Your task to perform on an android device: read, delete, or share a saved page in the chrome app Image 0: 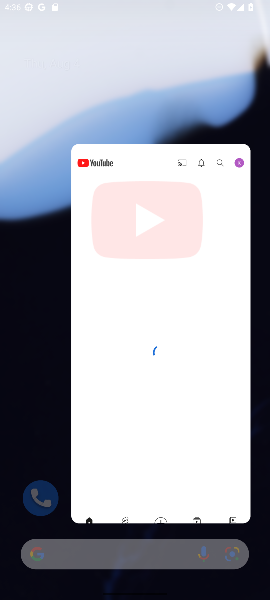
Step 0: drag from (104, 213) to (209, 103)
Your task to perform on an android device: read, delete, or share a saved page in the chrome app Image 1: 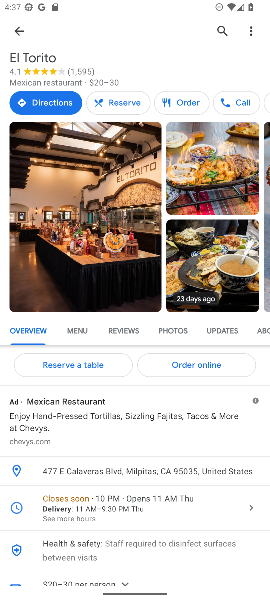
Step 1: drag from (137, 371) to (266, 200)
Your task to perform on an android device: read, delete, or share a saved page in the chrome app Image 2: 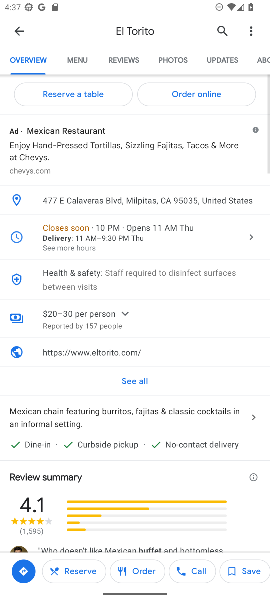
Step 2: drag from (177, 199) to (250, 580)
Your task to perform on an android device: read, delete, or share a saved page in the chrome app Image 3: 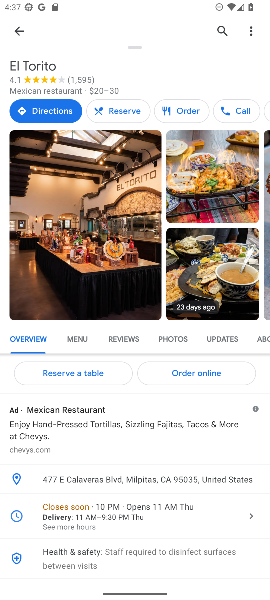
Step 3: press home button
Your task to perform on an android device: read, delete, or share a saved page in the chrome app Image 4: 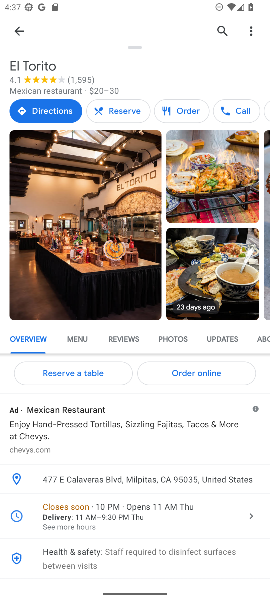
Step 4: drag from (250, 580) to (251, 431)
Your task to perform on an android device: read, delete, or share a saved page in the chrome app Image 5: 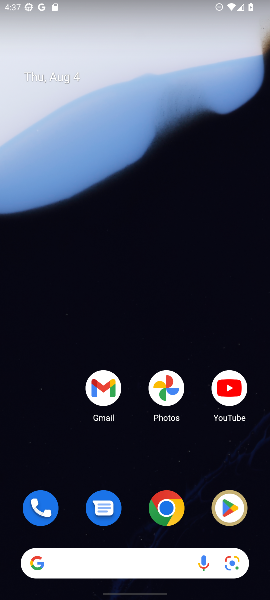
Step 5: drag from (109, 557) to (208, 60)
Your task to perform on an android device: read, delete, or share a saved page in the chrome app Image 6: 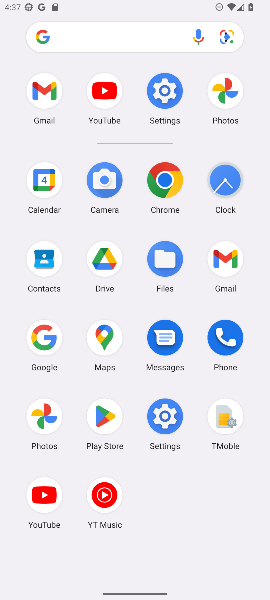
Step 6: click (164, 181)
Your task to perform on an android device: read, delete, or share a saved page in the chrome app Image 7: 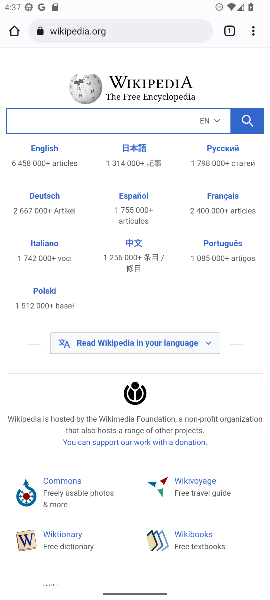
Step 7: drag from (256, 22) to (187, 173)
Your task to perform on an android device: read, delete, or share a saved page in the chrome app Image 8: 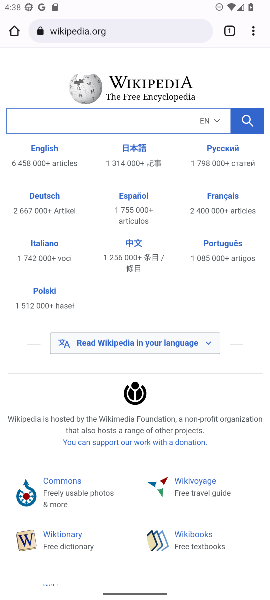
Step 8: drag from (205, 154) to (261, 21)
Your task to perform on an android device: read, delete, or share a saved page in the chrome app Image 9: 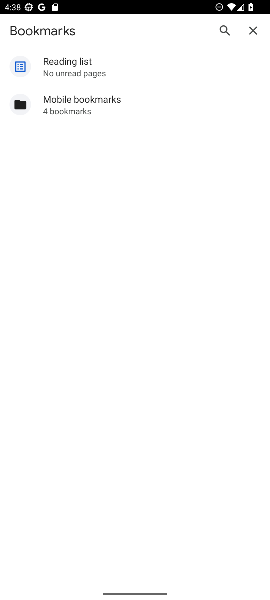
Step 9: click (91, 92)
Your task to perform on an android device: read, delete, or share a saved page in the chrome app Image 10: 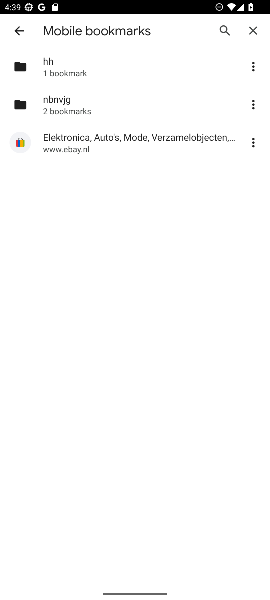
Step 10: task complete